Your task to perform on an android device: set default search engine in the chrome app Image 0: 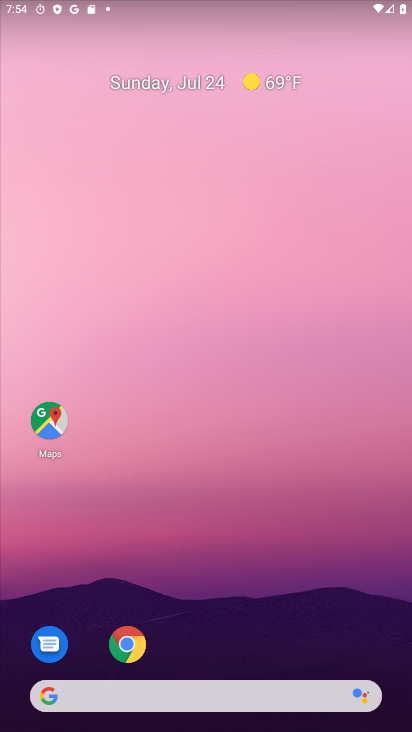
Step 0: click (123, 630)
Your task to perform on an android device: set default search engine in the chrome app Image 1: 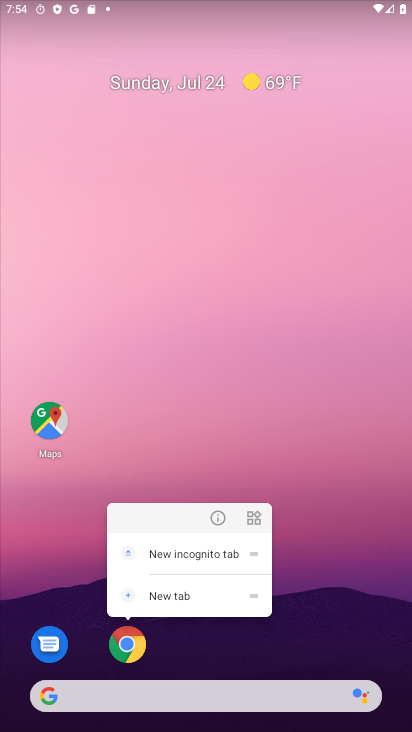
Step 1: click (123, 630)
Your task to perform on an android device: set default search engine in the chrome app Image 2: 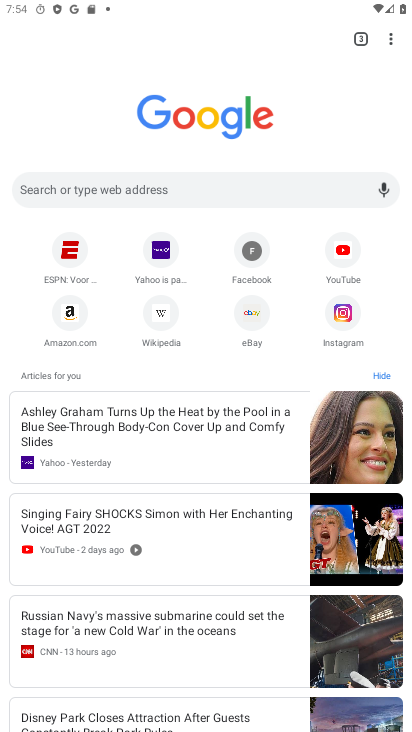
Step 2: click (392, 35)
Your task to perform on an android device: set default search engine in the chrome app Image 3: 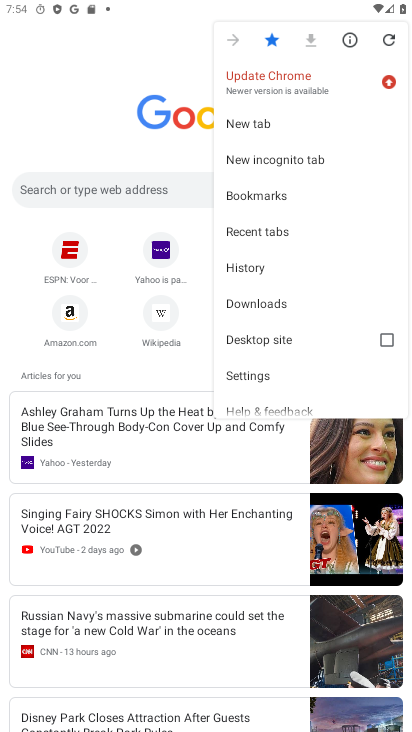
Step 3: click (258, 368)
Your task to perform on an android device: set default search engine in the chrome app Image 4: 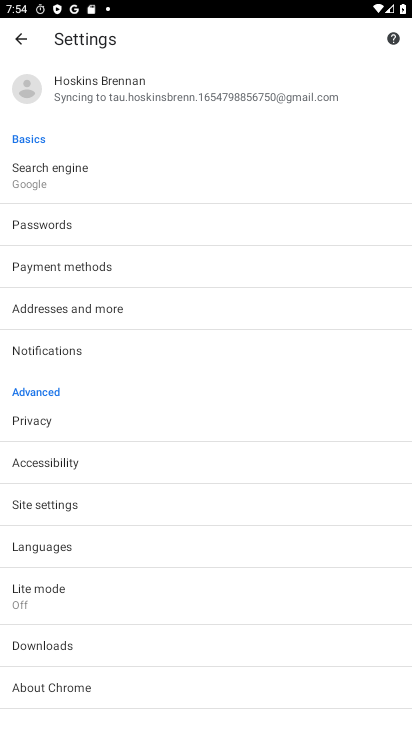
Step 4: click (57, 179)
Your task to perform on an android device: set default search engine in the chrome app Image 5: 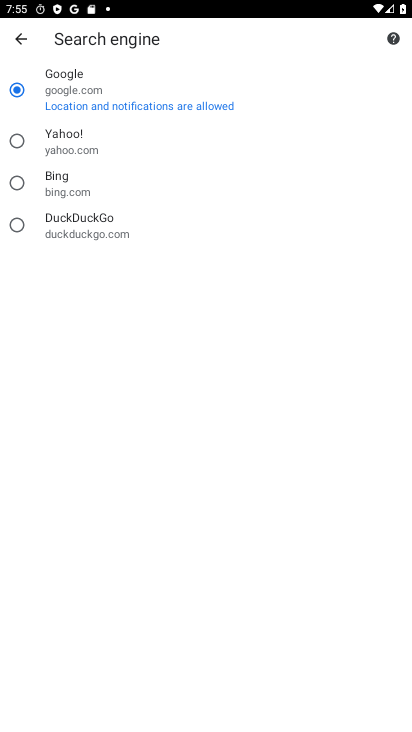
Step 5: task complete